Your task to perform on an android device: Open my contact list Image 0: 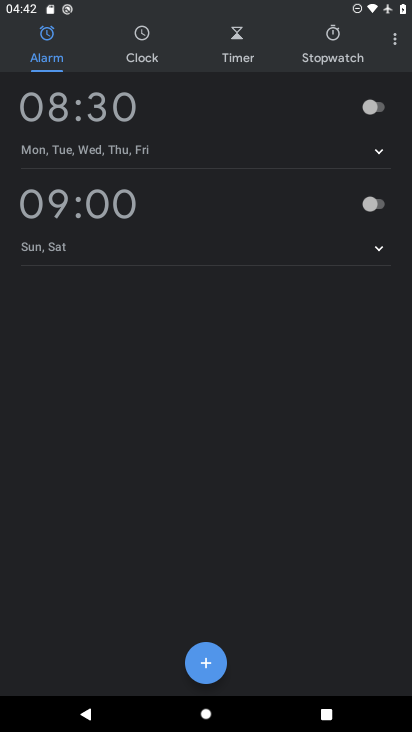
Step 0: press home button
Your task to perform on an android device: Open my contact list Image 1: 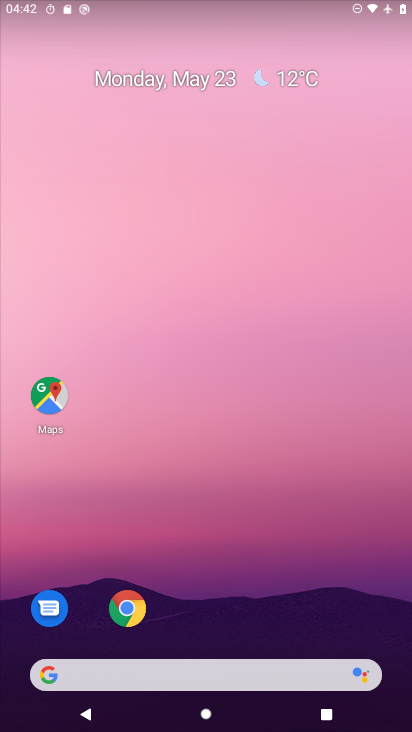
Step 1: drag from (284, 446) to (147, 52)
Your task to perform on an android device: Open my contact list Image 2: 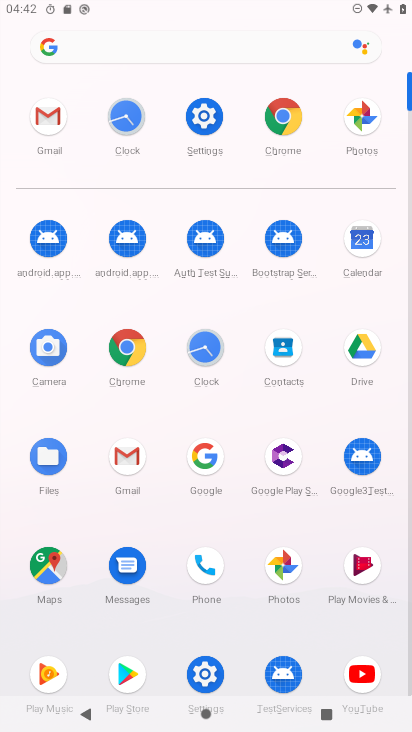
Step 2: click (281, 342)
Your task to perform on an android device: Open my contact list Image 3: 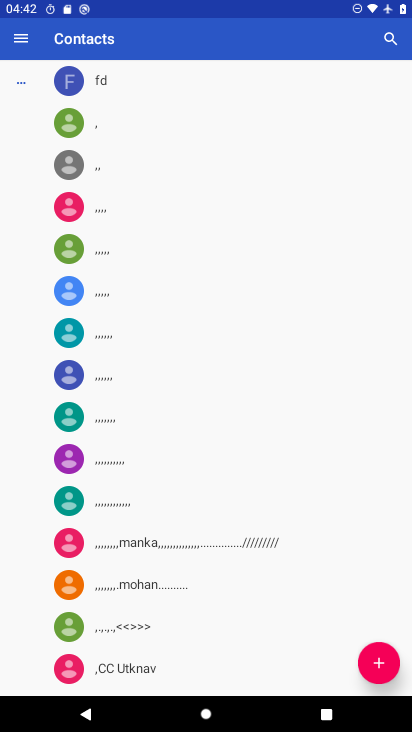
Step 3: task complete